Your task to perform on an android device: open chrome and create a bookmark for the current page Image 0: 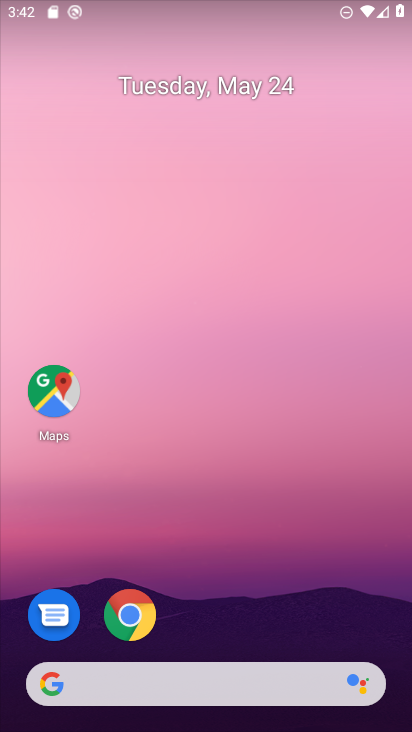
Step 0: drag from (276, 650) to (280, 138)
Your task to perform on an android device: open chrome and create a bookmark for the current page Image 1: 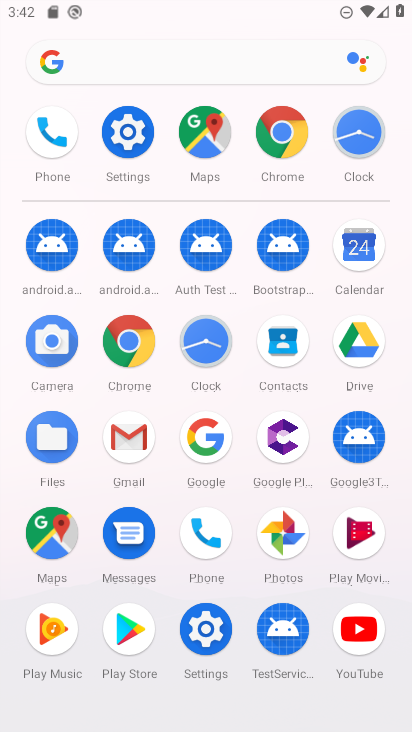
Step 1: click (143, 349)
Your task to perform on an android device: open chrome and create a bookmark for the current page Image 2: 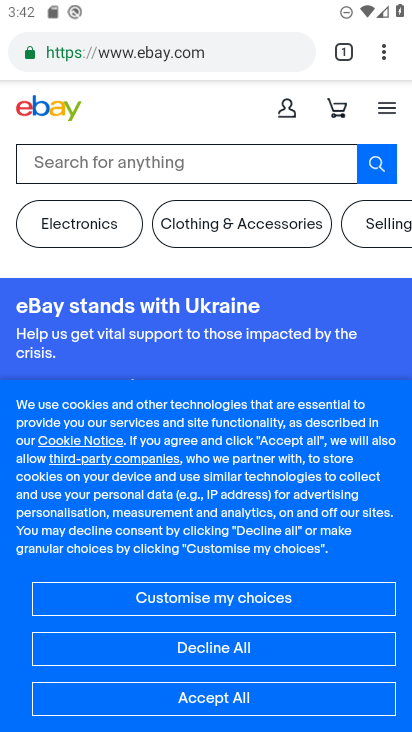
Step 2: click (378, 52)
Your task to perform on an android device: open chrome and create a bookmark for the current page Image 3: 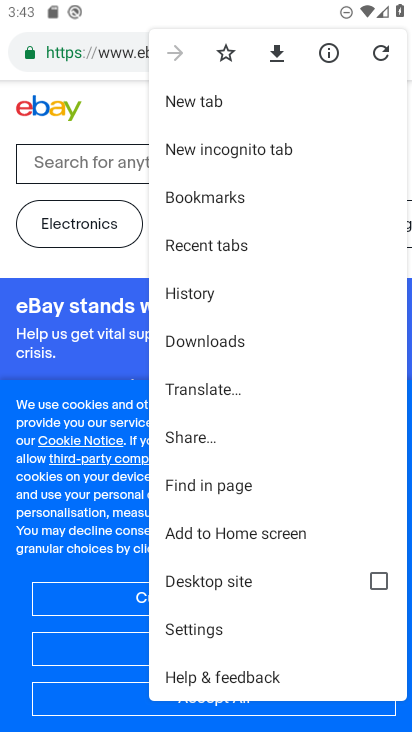
Step 3: click (103, 99)
Your task to perform on an android device: open chrome and create a bookmark for the current page Image 4: 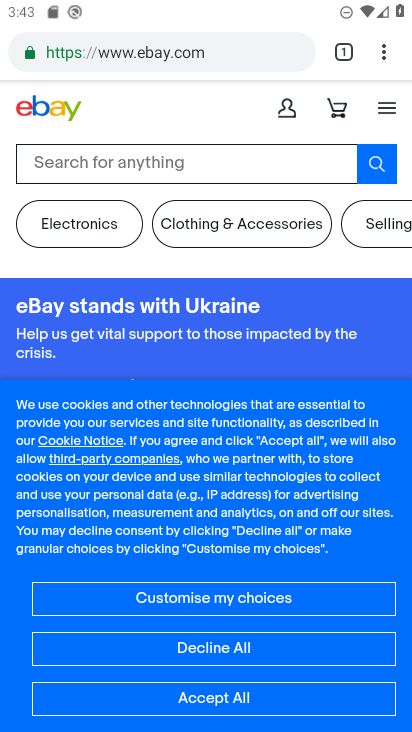
Step 4: click (377, 58)
Your task to perform on an android device: open chrome and create a bookmark for the current page Image 5: 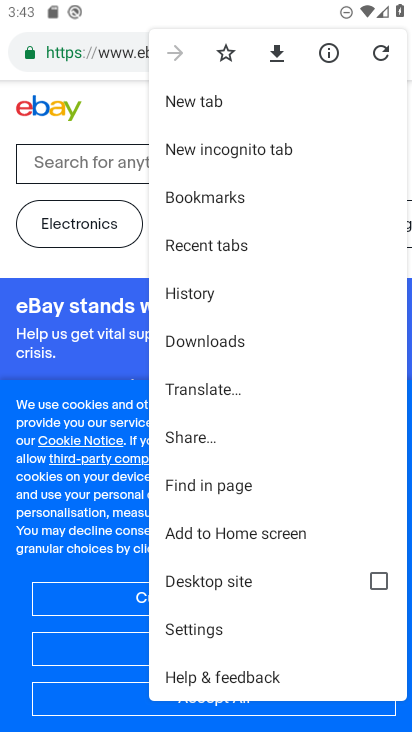
Step 5: click (226, 55)
Your task to perform on an android device: open chrome and create a bookmark for the current page Image 6: 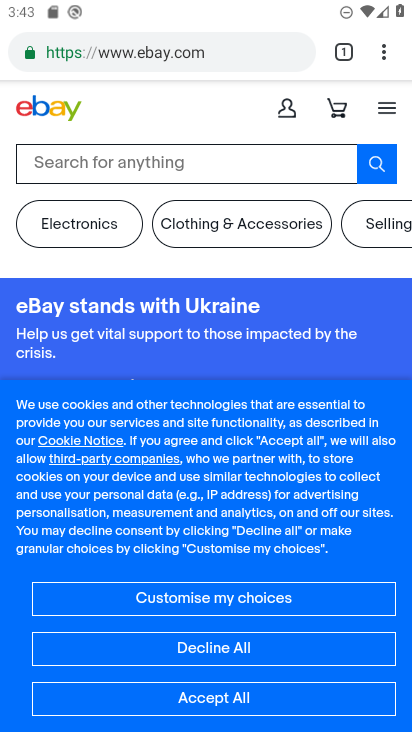
Step 6: task complete